Your task to perform on an android device: Open CNN.com Image 0: 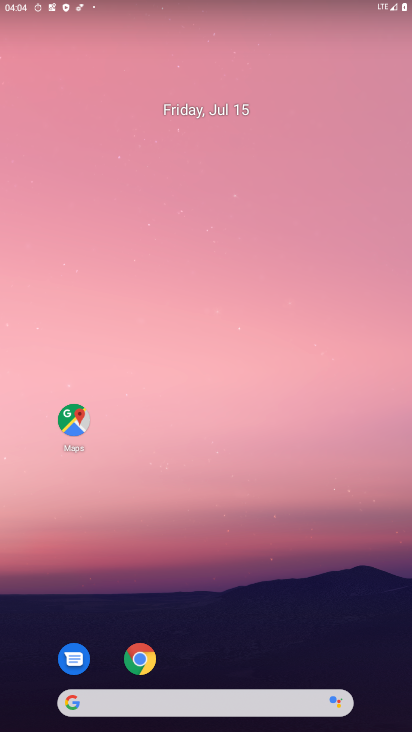
Step 0: click (136, 658)
Your task to perform on an android device: Open CNN.com Image 1: 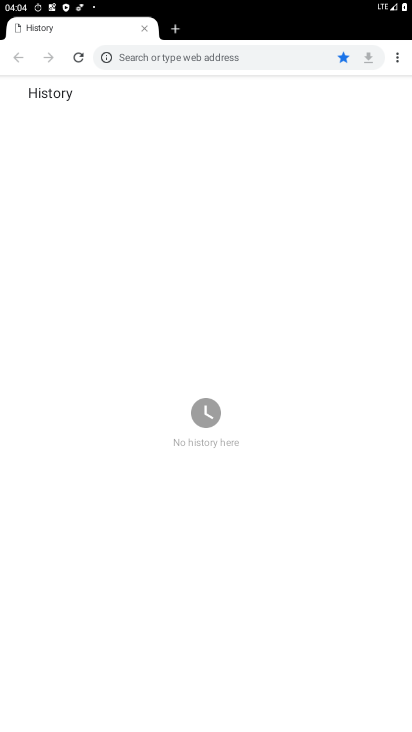
Step 1: click (288, 60)
Your task to perform on an android device: Open CNN.com Image 2: 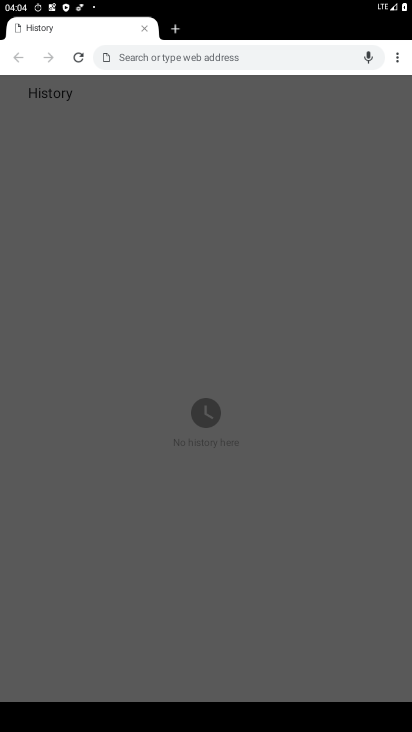
Step 2: type "CNN.com"
Your task to perform on an android device: Open CNN.com Image 3: 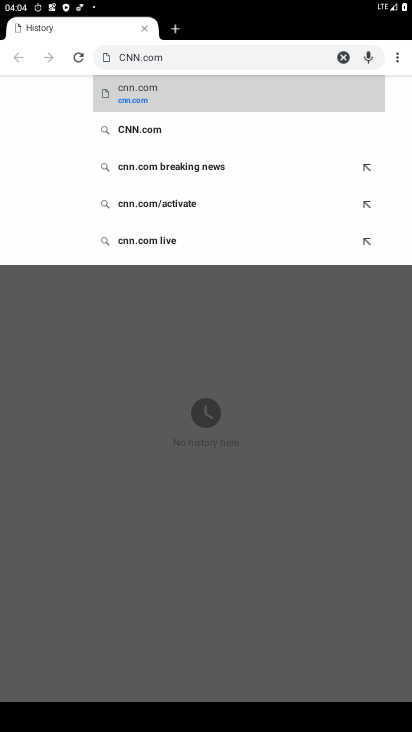
Step 3: click (162, 91)
Your task to perform on an android device: Open CNN.com Image 4: 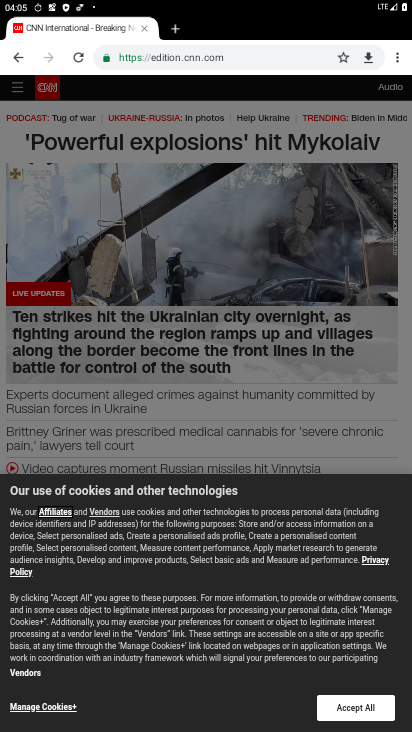
Step 4: task complete